Your task to perform on an android device: Check out the best rated electric trimmers on Lowe's Image 0: 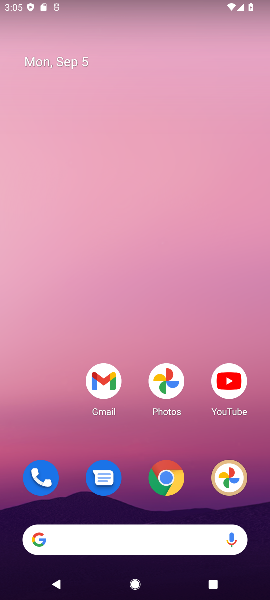
Step 0: drag from (138, 516) to (144, 163)
Your task to perform on an android device: Check out the best rated electric trimmers on Lowe's Image 1: 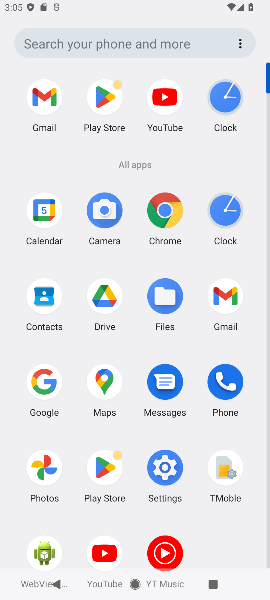
Step 1: click (172, 233)
Your task to perform on an android device: Check out the best rated electric trimmers on Lowe's Image 2: 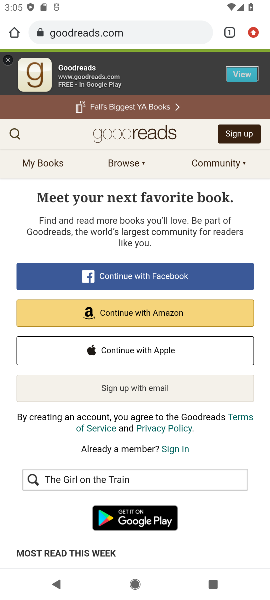
Step 2: click (179, 34)
Your task to perform on an android device: Check out the best rated electric trimmers on Lowe's Image 3: 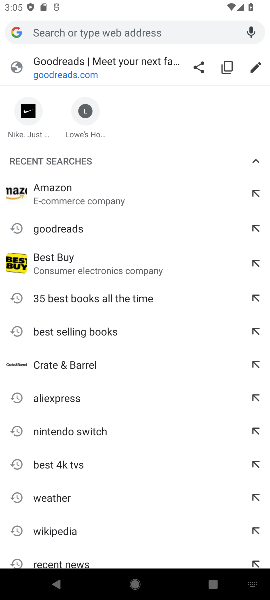
Step 3: type "Lowe's"
Your task to perform on an android device: Check out the best rated electric trimmers on Lowe's Image 4: 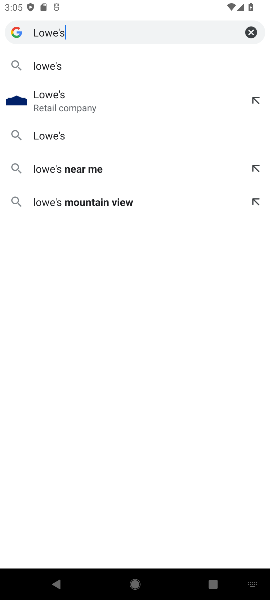
Step 4: click (111, 107)
Your task to perform on an android device: Check out the best rated electric trimmers on Lowe's Image 5: 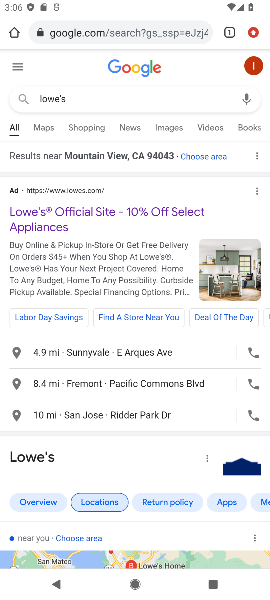
Step 5: drag from (99, 293) to (144, 1)
Your task to perform on an android device: Check out the best rated electric trimmers on Lowe's Image 6: 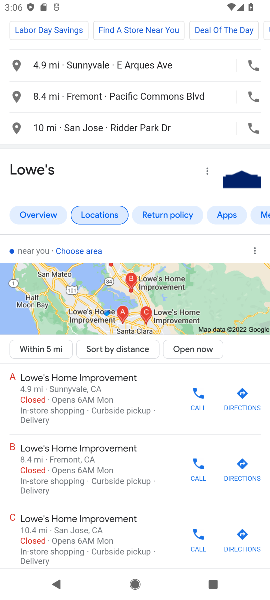
Step 6: drag from (75, 441) to (115, 219)
Your task to perform on an android device: Check out the best rated electric trimmers on Lowe's Image 7: 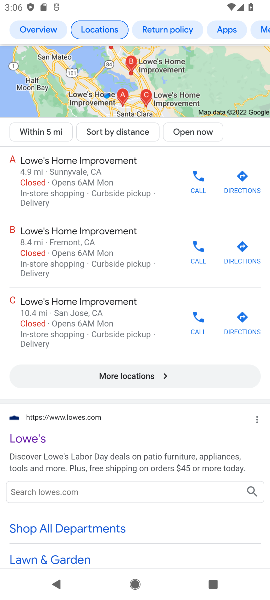
Step 7: click (30, 443)
Your task to perform on an android device: Check out the best rated electric trimmers on Lowe's Image 8: 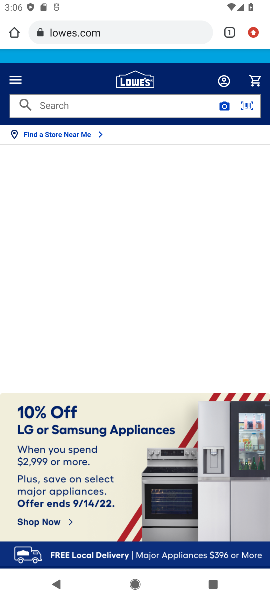
Step 8: click (167, 107)
Your task to perform on an android device: Check out the best rated electric trimmers on Lowe's Image 9: 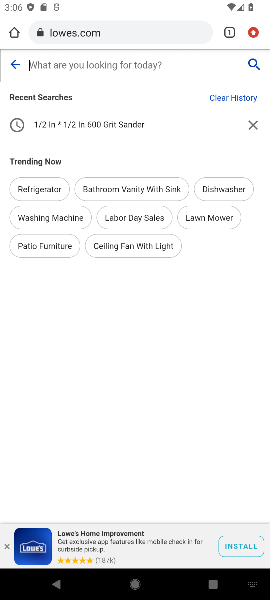
Step 9: type "best rated electric trimmers"
Your task to perform on an android device: Check out the best rated electric trimmers on Lowe's Image 10: 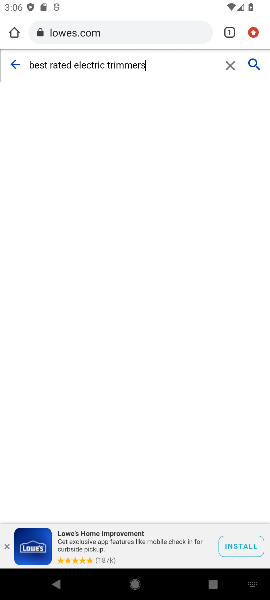
Step 10: click (252, 61)
Your task to perform on an android device: Check out the best rated electric trimmers on Lowe's Image 11: 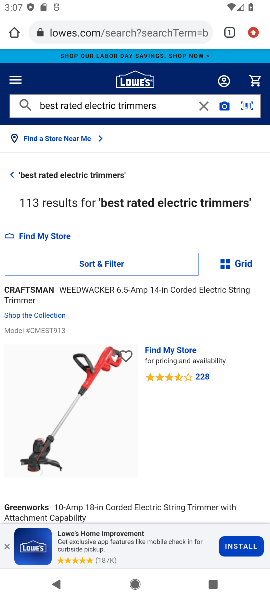
Step 11: task complete